Your task to perform on an android device: toggle pop-ups in chrome Image 0: 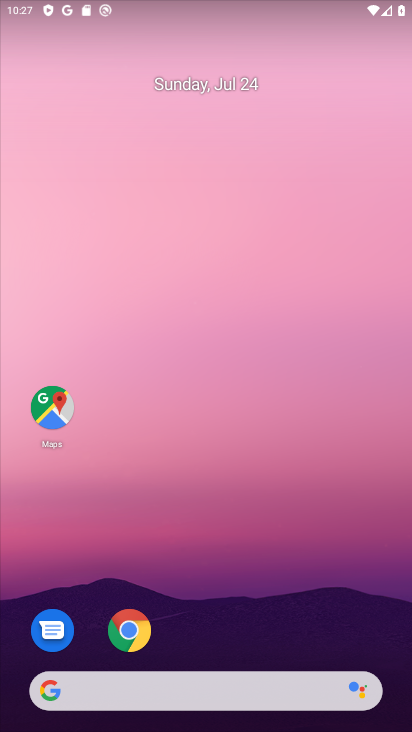
Step 0: press home button
Your task to perform on an android device: toggle pop-ups in chrome Image 1: 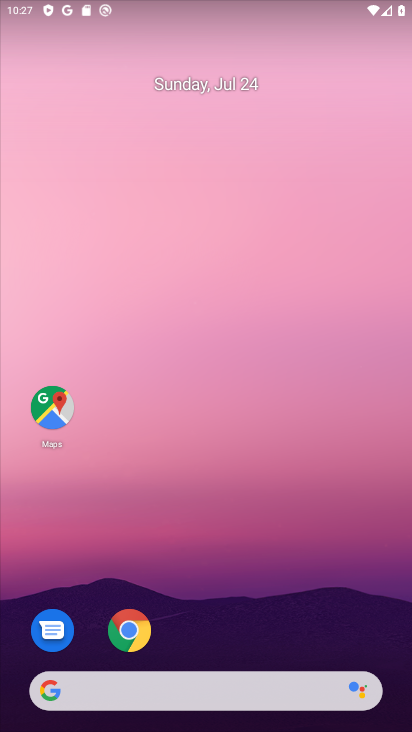
Step 1: click (118, 625)
Your task to perform on an android device: toggle pop-ups in chrome Image 2: 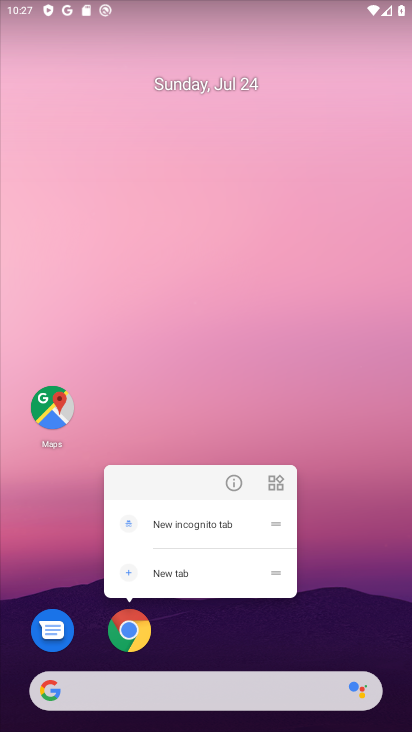
Step 2: click (128, 655)
Your task to perform on an android device: toggle pop-ups in chrome Image 3: 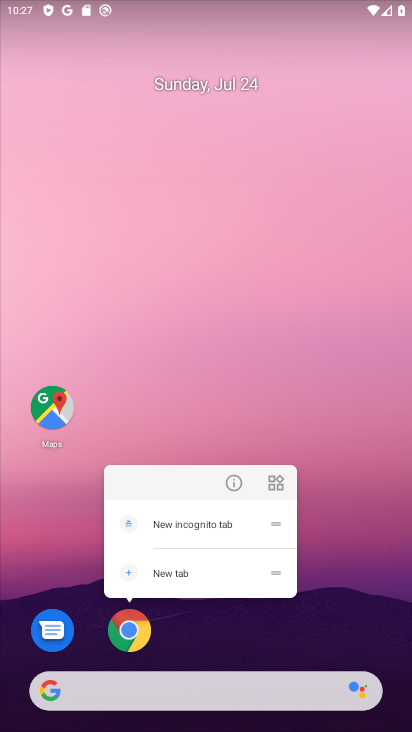
Step 3: click (128, 644)
Your task to perform on an android device: toggle pop-ups in chrome Image 4: 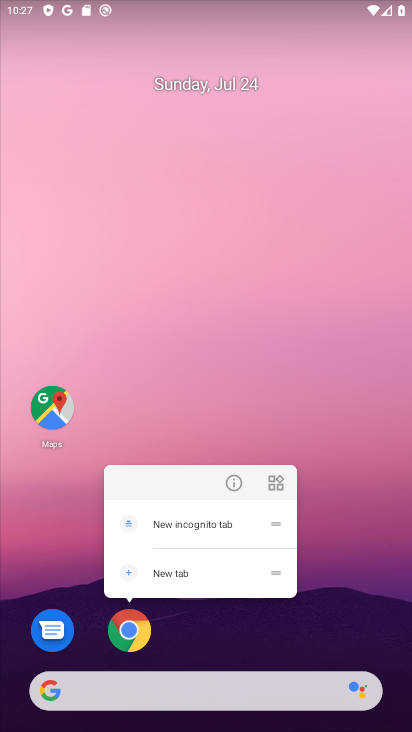
Step 4: click (124, 644)
Your task to perform on an android device: toggle pop-ups in chrome Image 5: 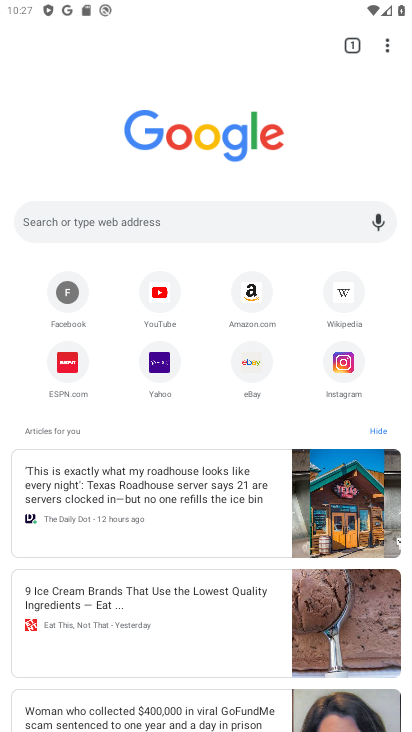
Step 5: drag from (386, 51) to (208, 385)
Your task to perform on an android device: toggle pop-ups in chrome Image 6: 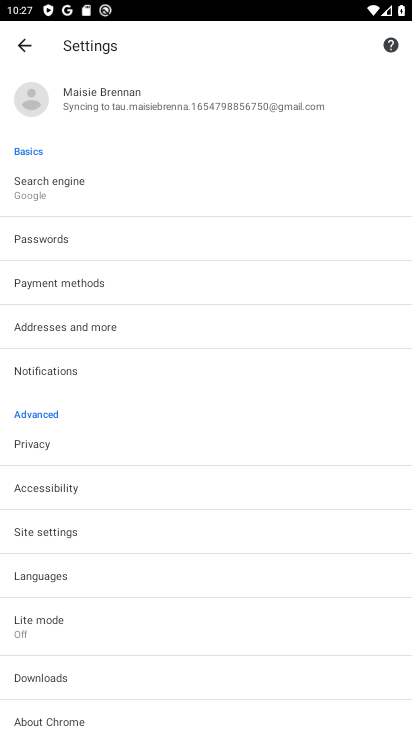
Step 6: click (69, 529)
Your task to perform on an android device: toggle pop-ups in chrome Image 7: 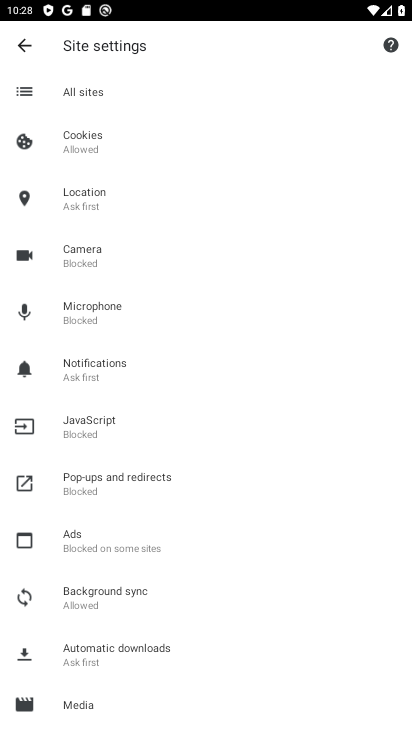
Step 7: click (124, 478)
Your task to perform on an android device: toggle pop-ups in chrome Image 8: 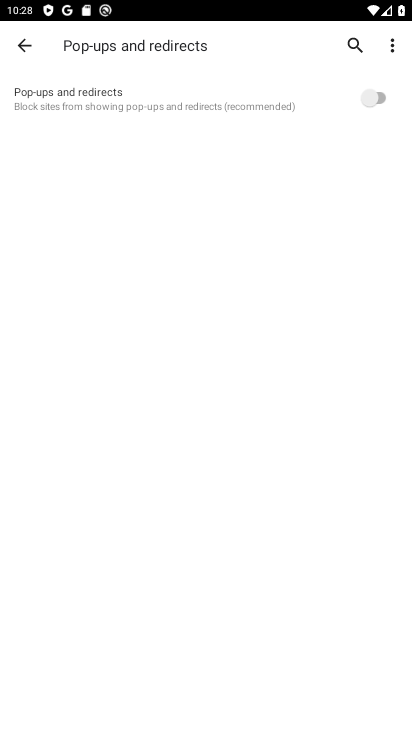
Step 8: click (366, 94)
Your task to perform on an android device: toggle pop-ups in chrome Image 9: 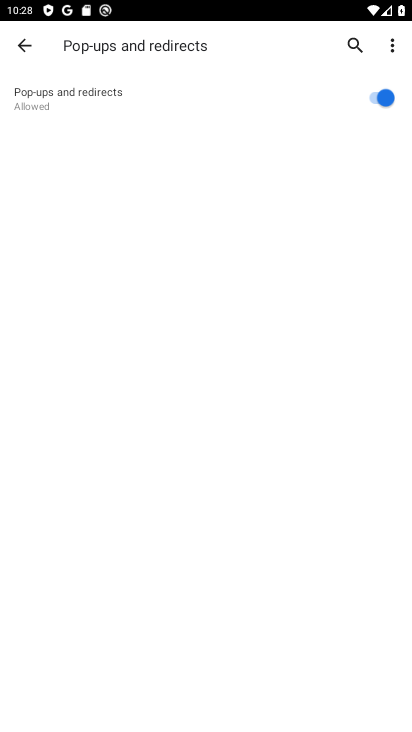
Step 9: task complete